Your task to perform on an android device: What's the weather going to be this weekend? Image 0: 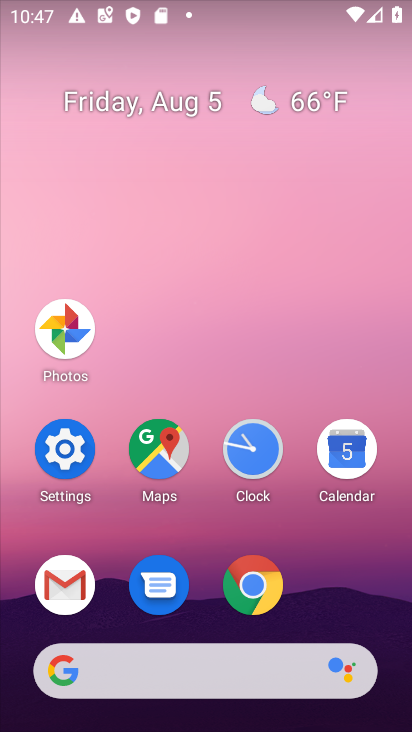
Step 0: click (144, 649)
Your task to perform on an android device: What's the weather going to be this weekend? Image 1: 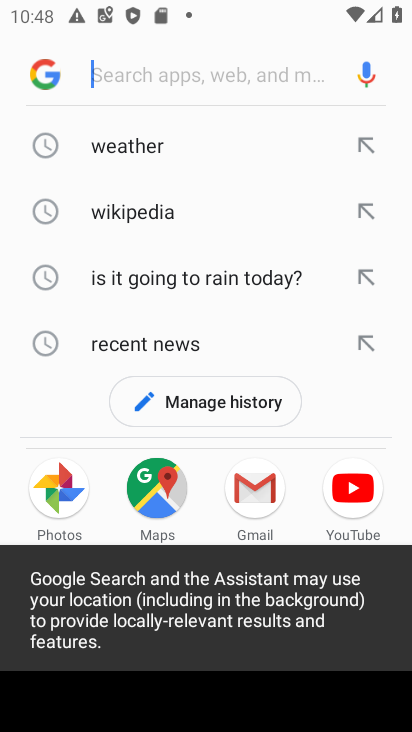
Step 1: click (139, 146)
Your task to perform on an android device: What's the weather going to be this weekend? Image 2: 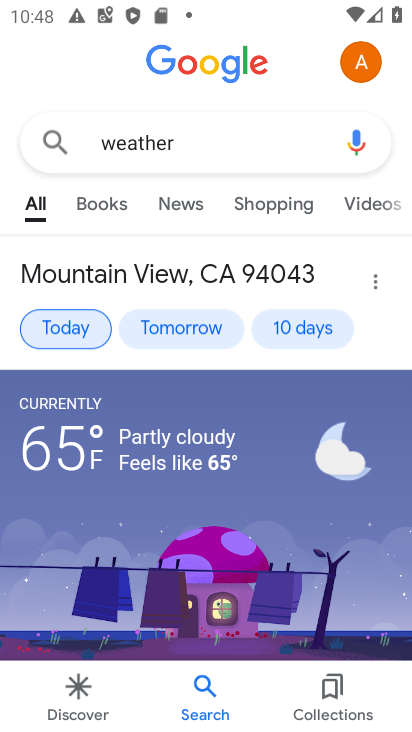
Step 2: click (294, 328)
Your task to perform on an android device: What's the weather going to be this weekend? Image 3: 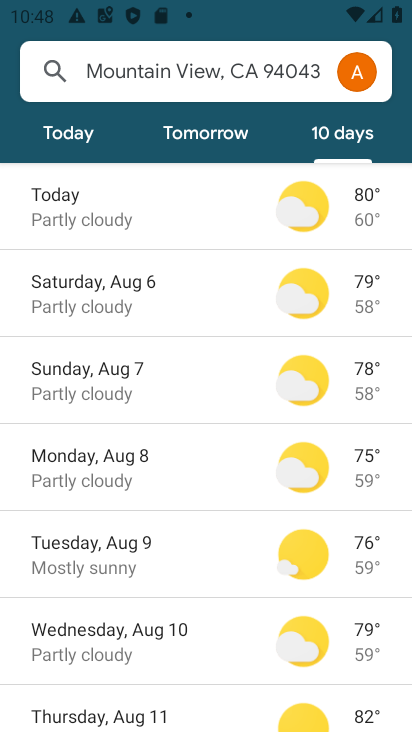
Step 3: task complete